Your task to perform on an android device: Open network settings Image 0: 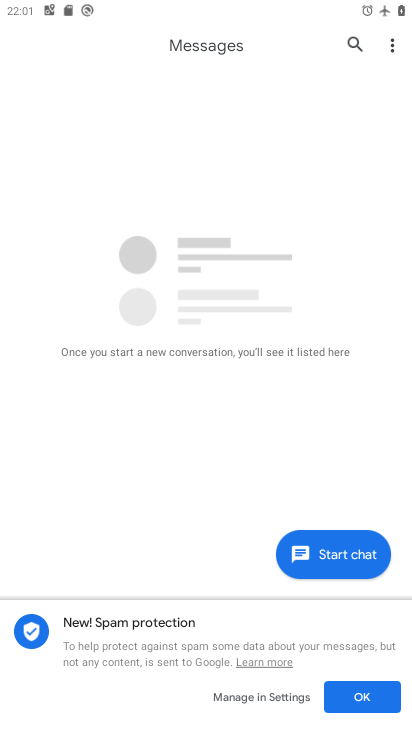
Step 0: drag from (197, 642) to (269, 36)
Your task to perform on an android device: Open network settings Image 1: 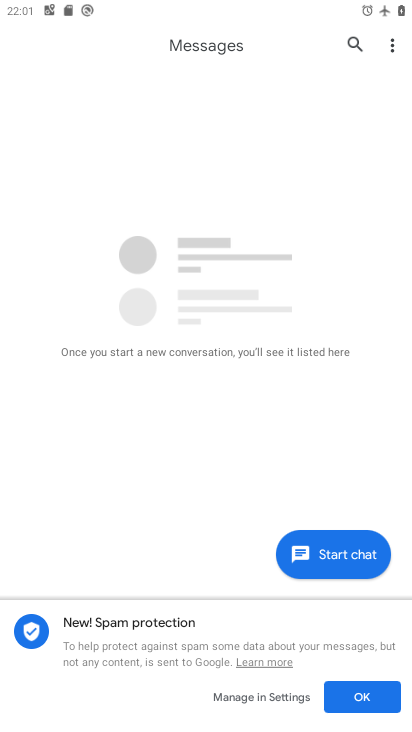
Step 1: press home button
Your task to perform on an android device: Open network settings Image 2: 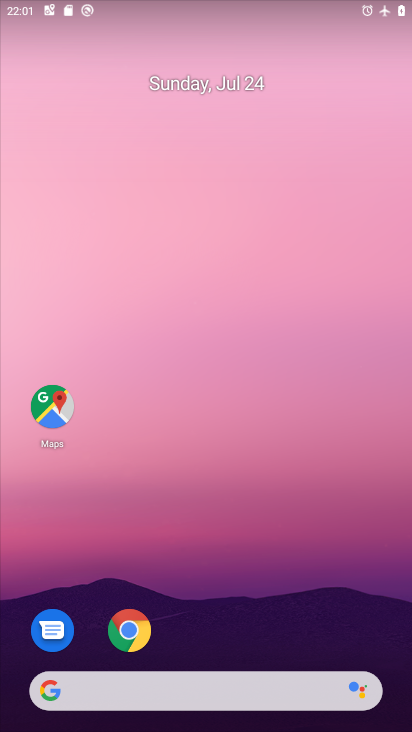
Step 2: drag from (224, 648) to (295, 26)
Your task to perform on an android device: Open network settings Image 3: 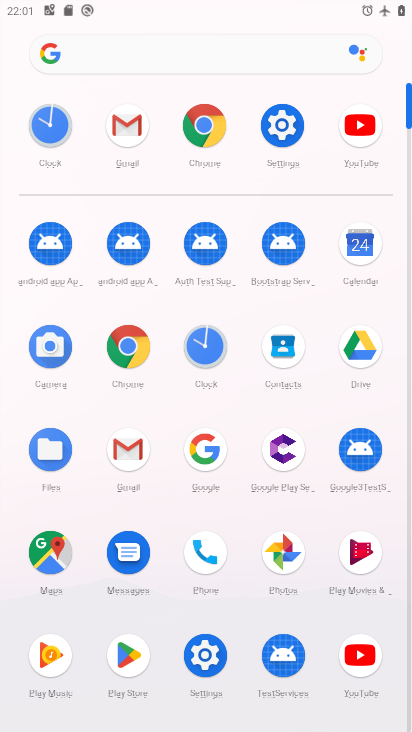
Step 3: click (293, 118)
Your task to perform on an android device: Open network settings Image 4: 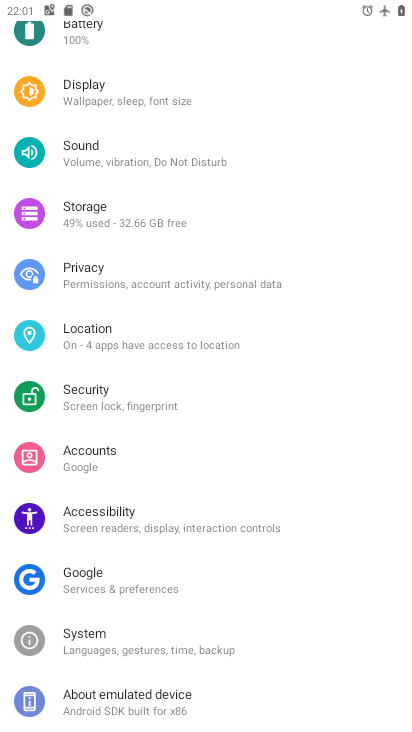
Step 4: drag from (132, 134) to (157, 527)
Your task to perform on an android device: Open network settings Image 5: 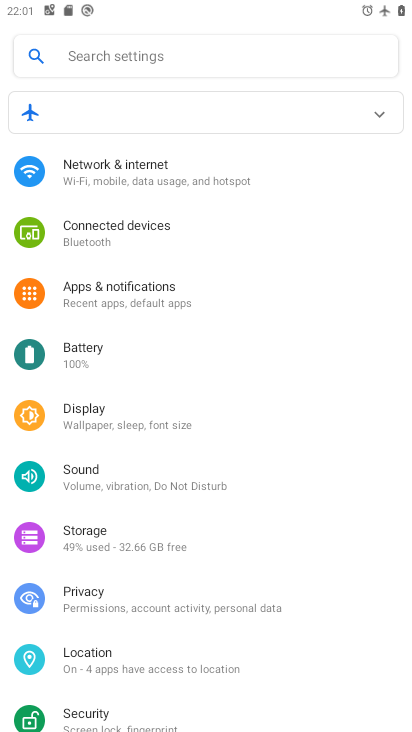
Step 5: click (98, 163)
Your task to perform on an android device: Open network settings Image 6: 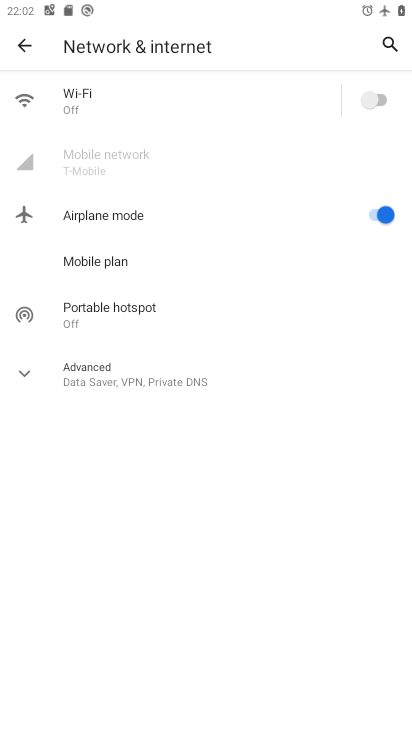
Step 6: task complete